Your task to perform on an android device: Open CNN.com Image 0: 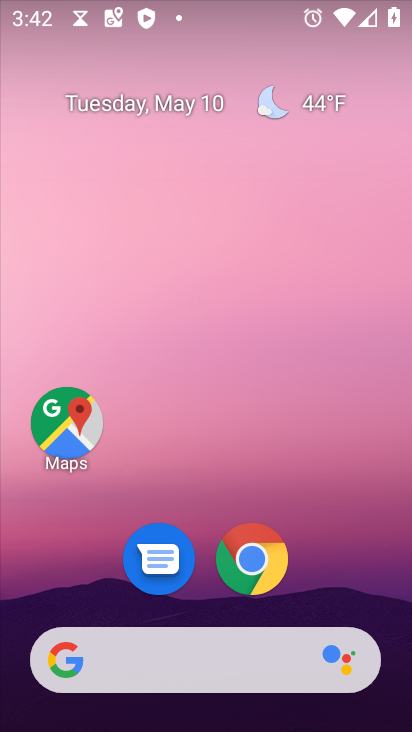
Step 0: drag from (377, 601) to (138, 50)
Your task to perform on an android device: Open CNN.com Image 1: 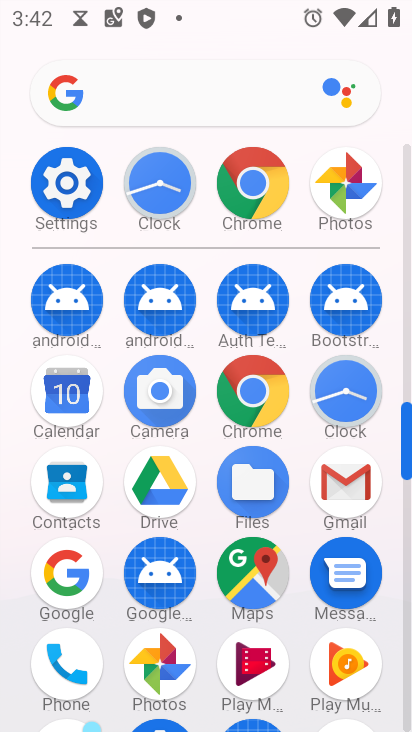
Step 1: click (259, 178)
Your task to perform on an android device: Open CNN.com Image 2: 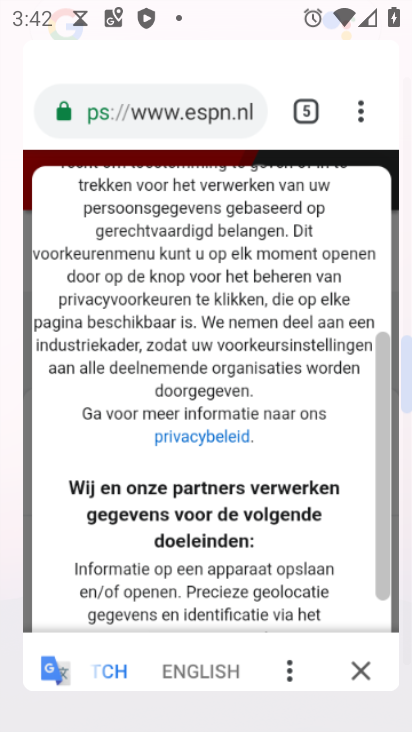
Step 2: click (262, 177)
Your task to perform on an android device: Open CNN.com Image 3: 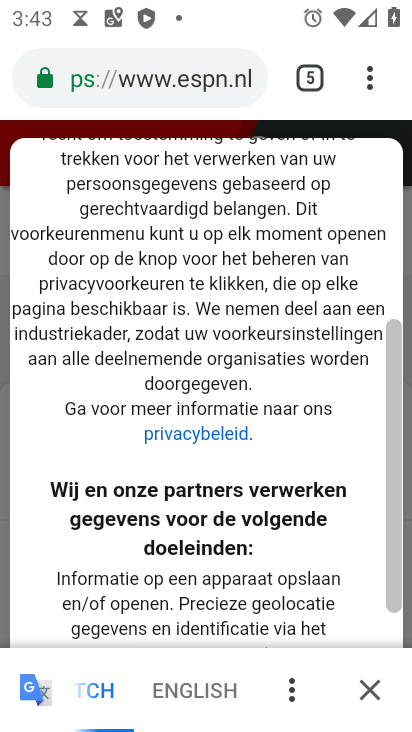
Step 3: drag from (361, 81) to (92, 163)
Your task to perform on an android device: Open CNN.com Image 4: 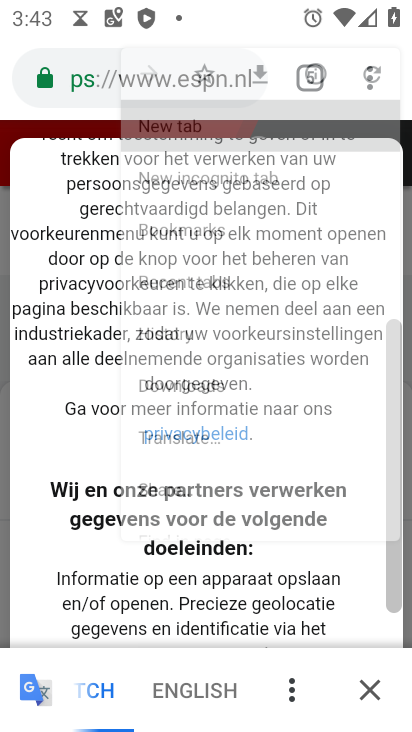
Step 4: click (91, 161)
Your task to perform on an android device: Open CNN.com Image 5: 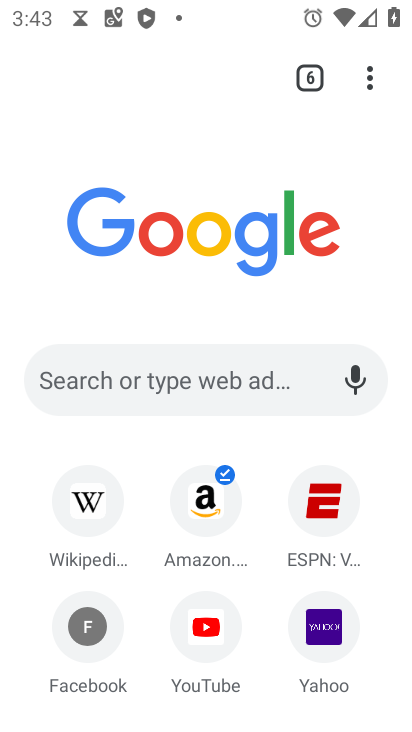
Step 5: click (77, 380)
Your task to perform on an android device: Open CNN.com Image 6: 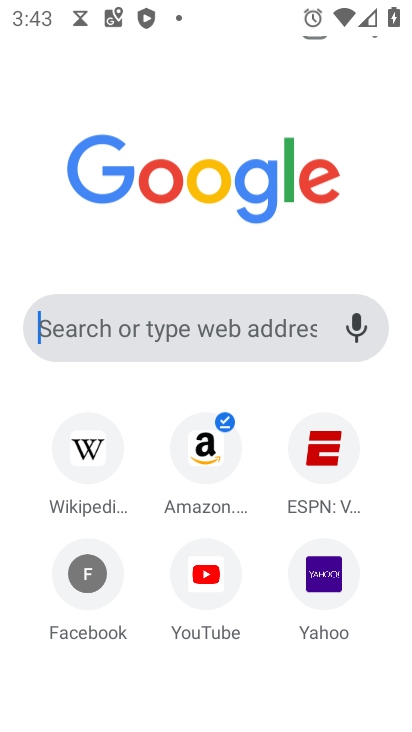
Step 6: click (76, 381)
Your task to perform on an android device: Open CNN.com Image 7: 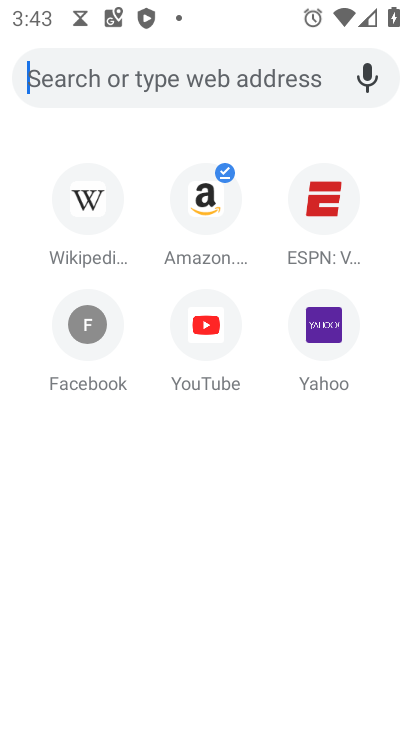
Step 7: click (75, 382)
Your task to perform on an android device: Open CNN.com Image 8: 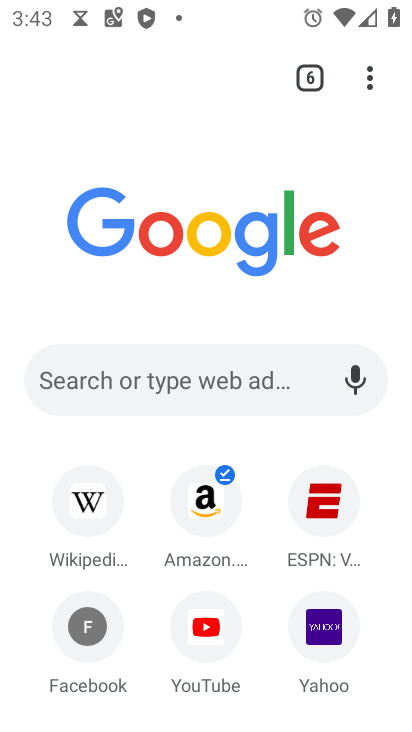
Step 8: type "cnn.com"
Your task to perform on an android device: Open CNN.com Image 9: 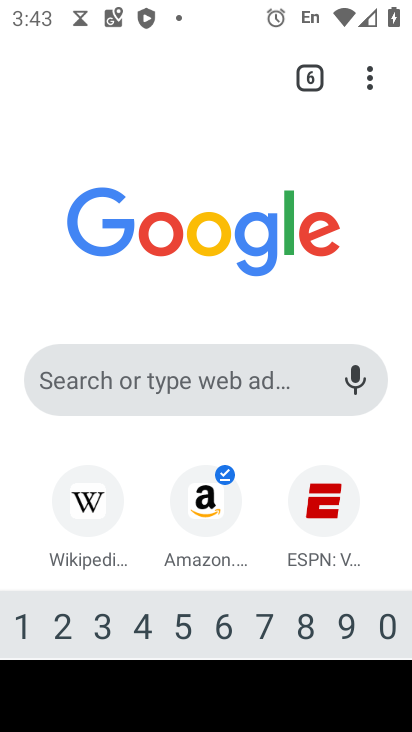
Step 9: click (105, 385)
Your task to perform on an android device: Open CNN.com Image 10: 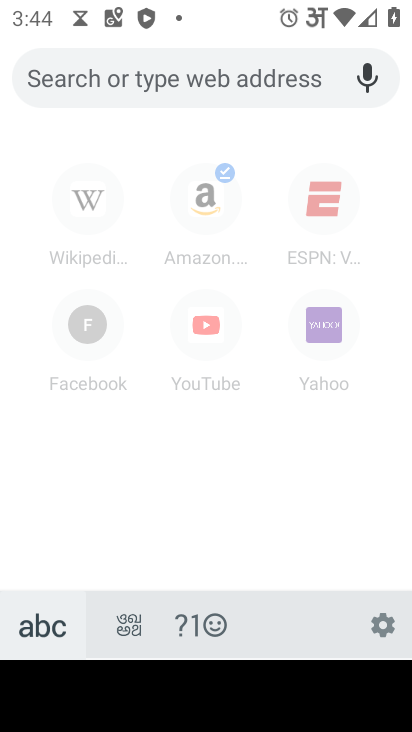
Step 10: type "cnn,com"
Your task to perform on an android device: Open CNN.com Image 11: 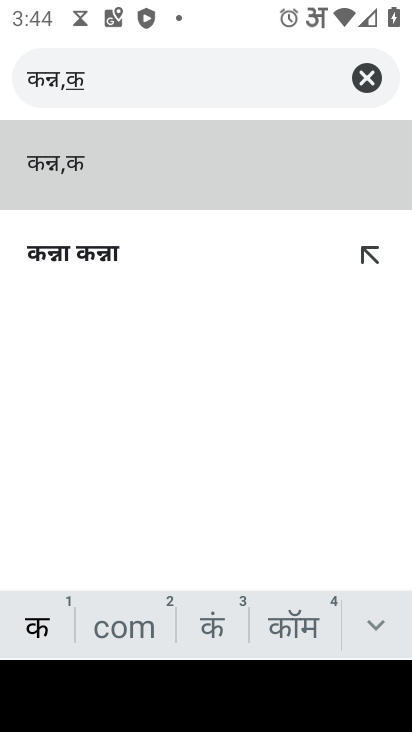
Step 11: click (126, 626)
Your task to perform on an android device: Open CNN.com Image 12: 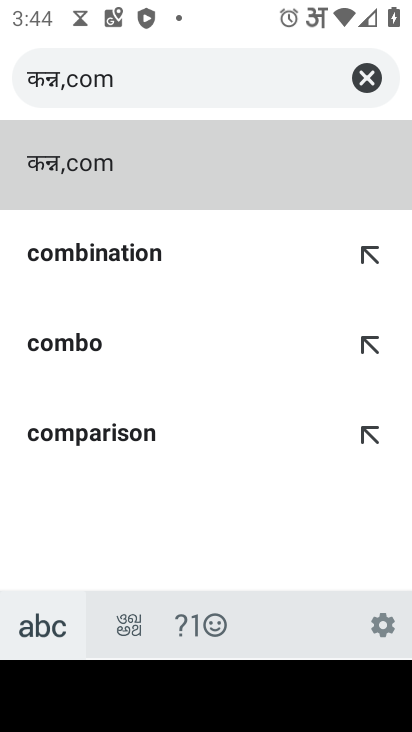
Step 12: click (126, 626)
Your task to perform on an android device: Open CNN.com Image 13: 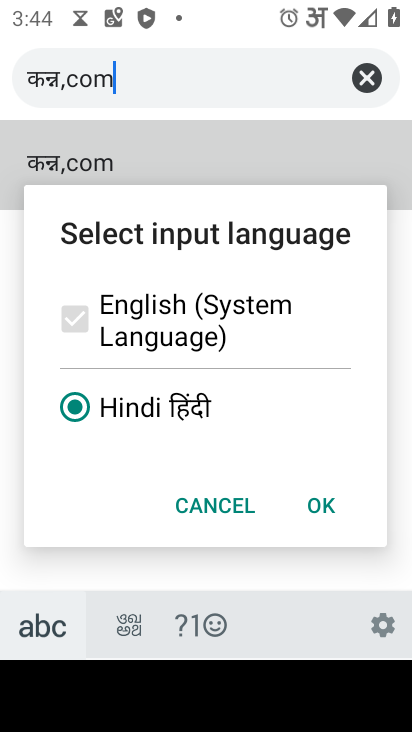
Step 13: click (157, 316)
Your task to perform on an android device: Open CNN.com Image 14: 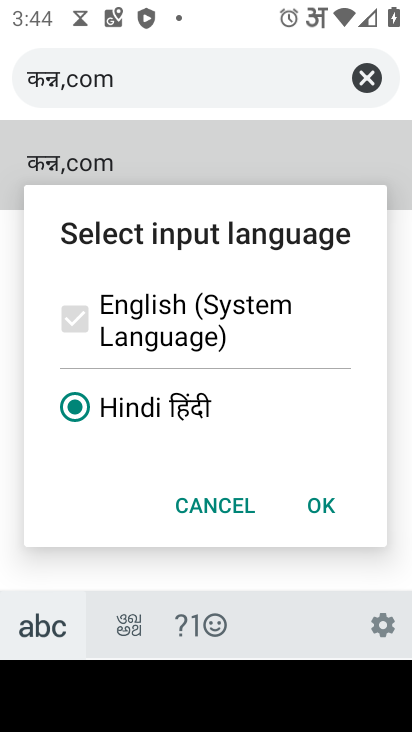
Step 14: click (157, 316)
Your task to perform on an android device: Open CNN.com Image 15: 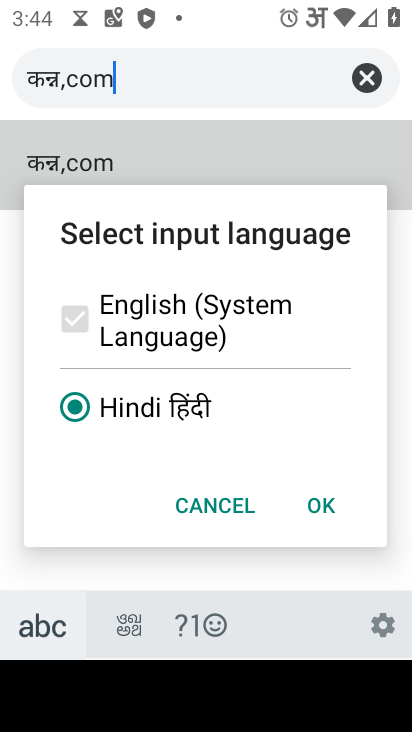
Step 15: click (157, 316)
Your task to perform on an android device: Open CNN.com Image 16: 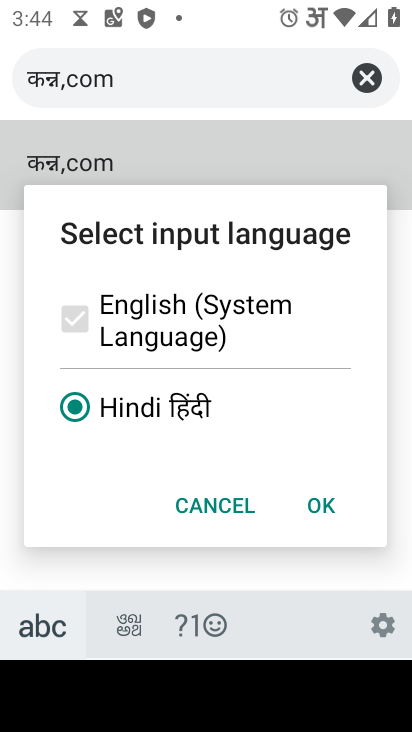
Step 16: click (157, 316)
Your task to perform on an android device: Open CNN.com Image 17: 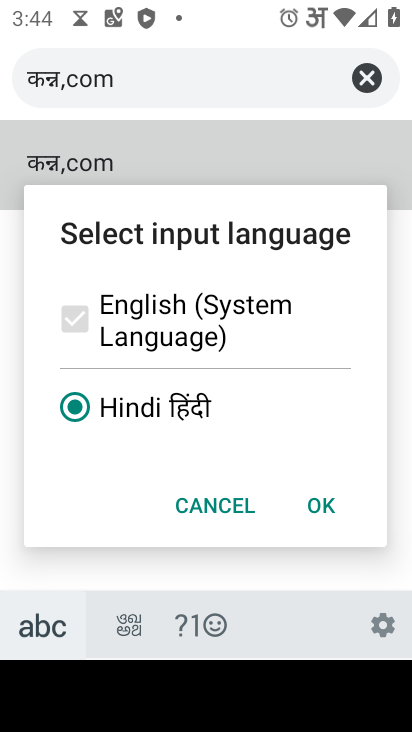
Step 17: click (157, 316)
Your task to perform on an android device: Open CNN.com Image 18: 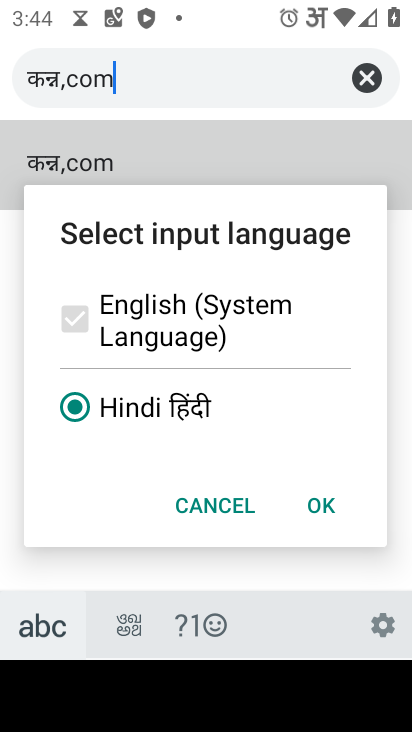
Step 18: click (157, 316)
Your task to perform on an android device: Open CNN.com Image 19: 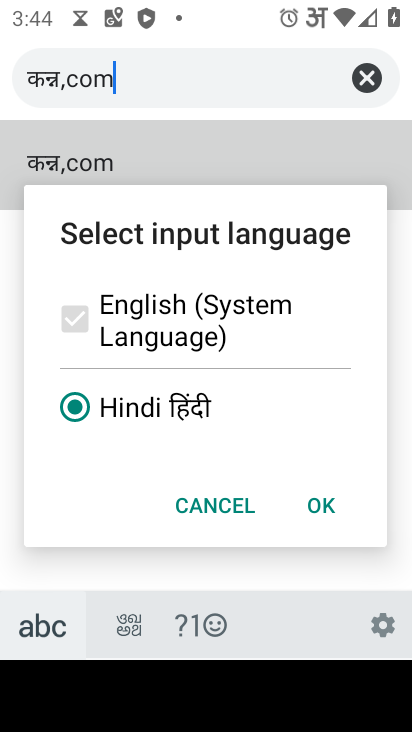
Step 19: click (157, 316)
Your task to perform on an android device: Open CNN.com Image 20: 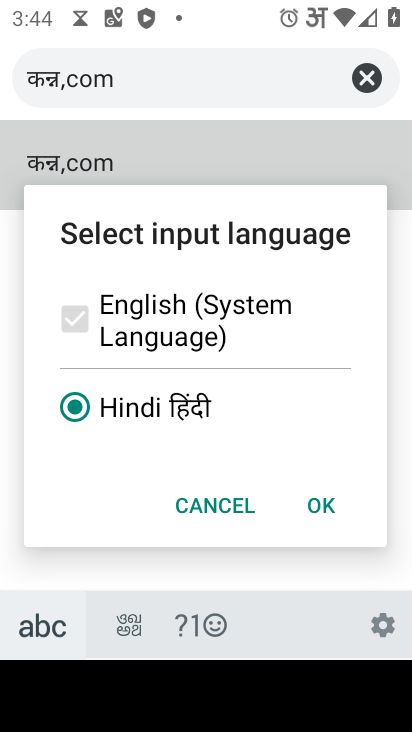
Step 20: click (157, 316)
Your task to perform on an android device: Open CNN.com Image 21: 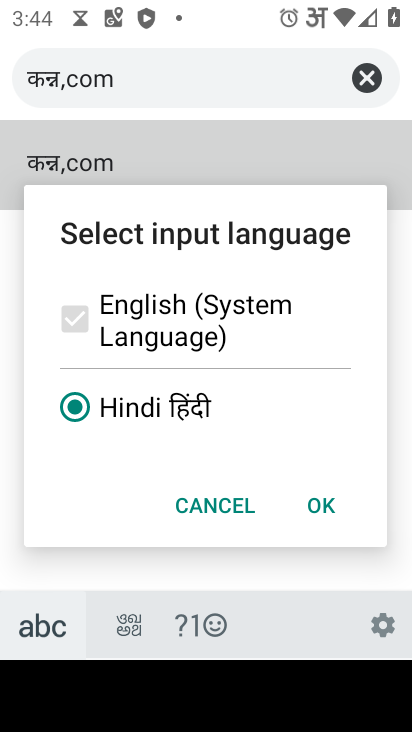
Step 21: click (157, 316)
Your task to perform on an android device: Open CNN.com Image 22: 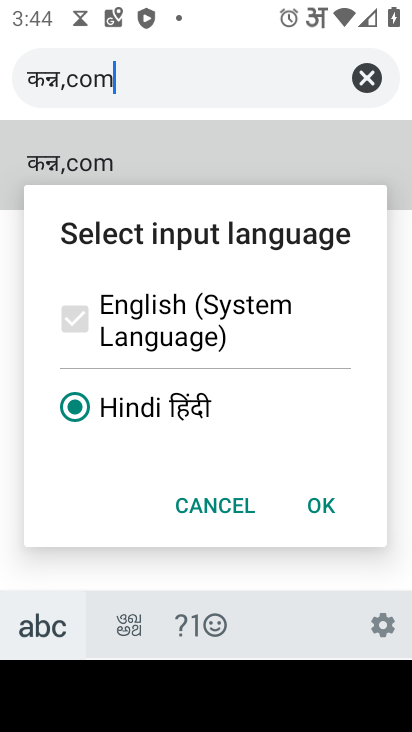
Step 22: click (157, 316)
Your task to perform on an android device: Open CNN.com Image 23: 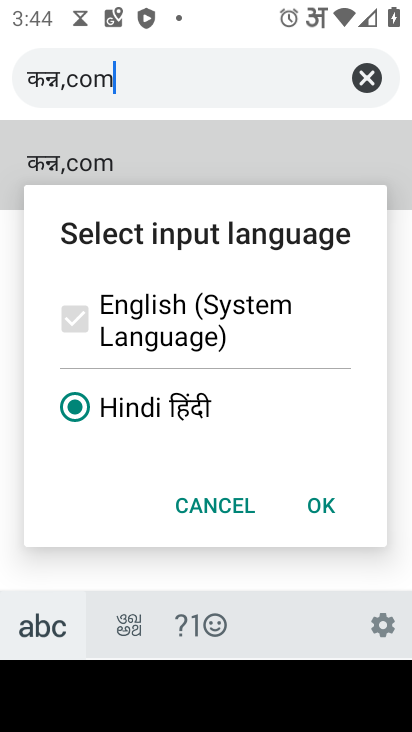
Step 23: click (157, 316)
Your task to perform on an android device: Open CNN.com Image 24: 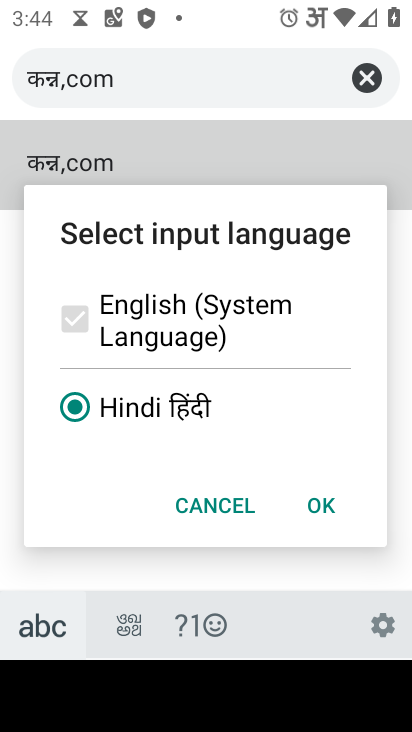
Step 24: click (157, 316)
Your task to perform on an android device: Open CNN.com Image 25: 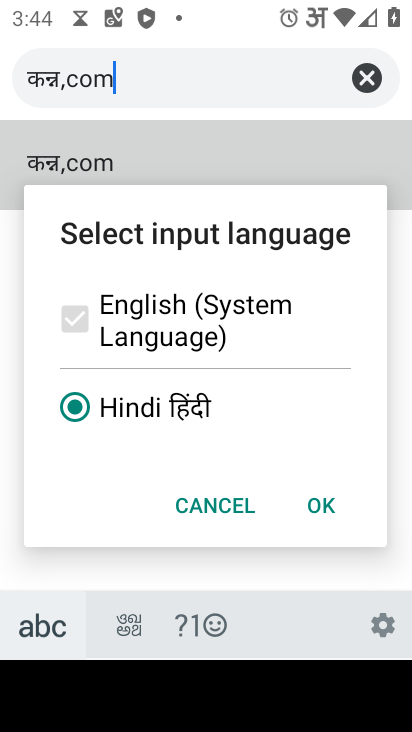
Step 25: click (157, 316)
Your task to perform on an android device: Open CNN.com Image 26: 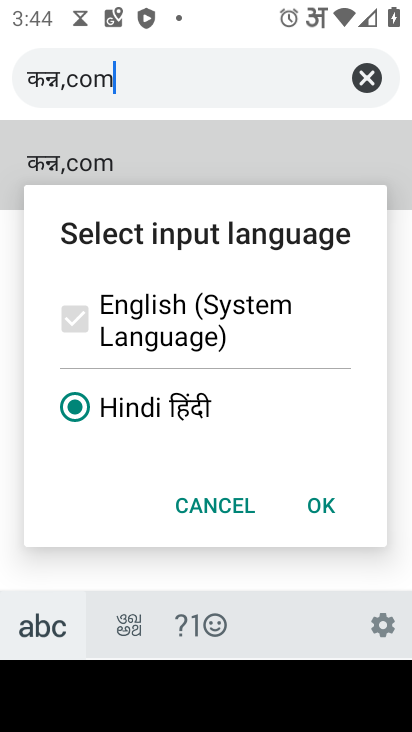
Step 26: click (157, 316)
Your task to perform on an android device: Open CNN.com Image 27: 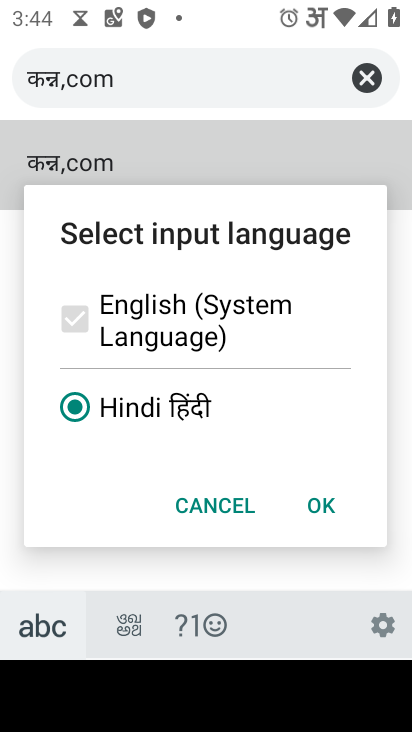
Step 27: click (169, 332)
Your task to perform on an android device: Open CNN.com Image 28: 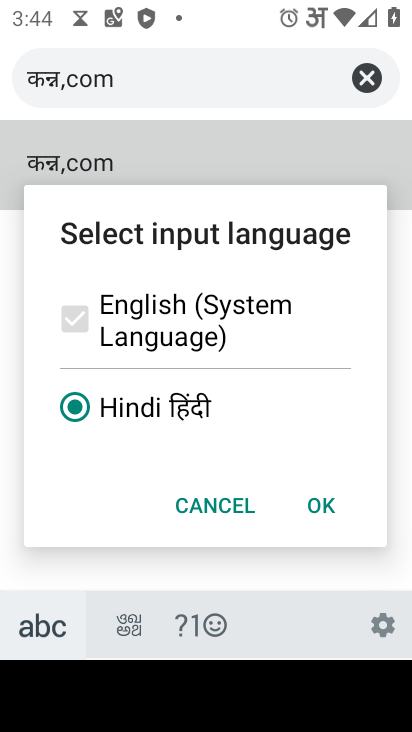
Step 28: click (169, 332)
Your task to perform on an android device: Open CNN.com Image 29: 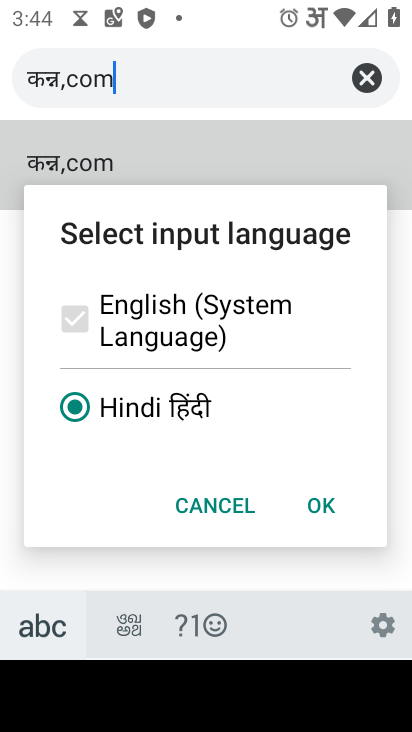
Step 29: click (169, 332)
Your task to perform on an android device: Open CNN.com Image 30: 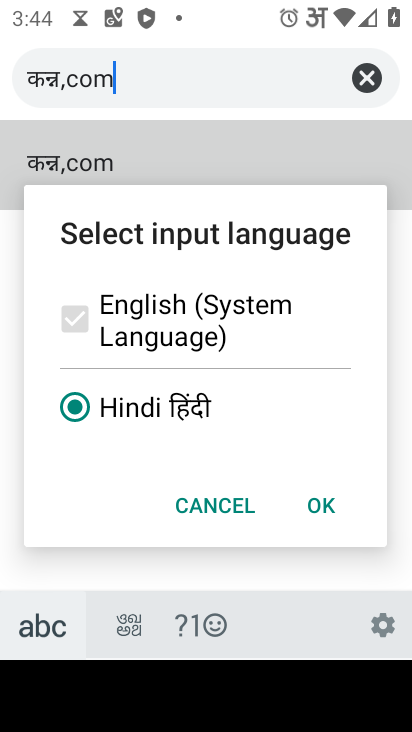
Step 30: click (169, 332)
Your task to perform on an android device: Open CNN.com Image 31: 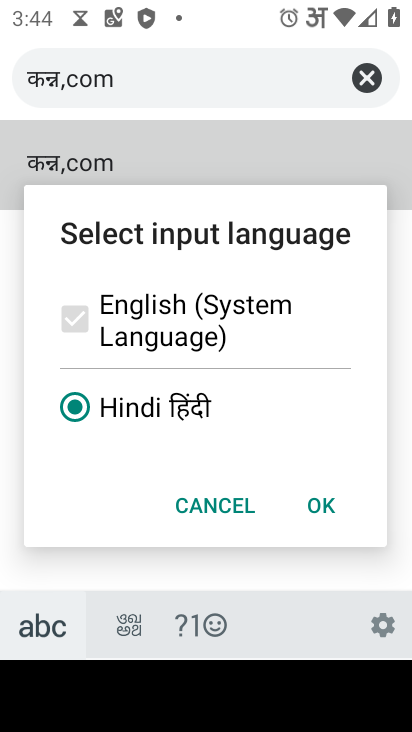
Step 31: click (169, 332)
Your task to perform on an android device: Open CNN.com Image 32: 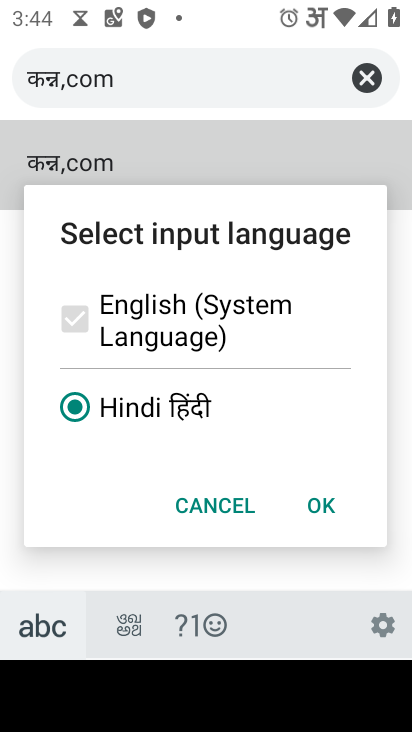
Step 32: click (169, 332)
Your task to perform on an android device: Open CNN.com Image 33: 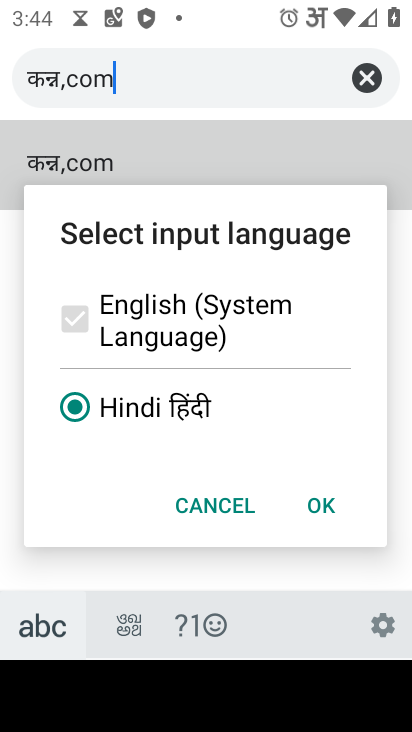
Step 33: click (169, 332)
Your task to perform on an android device: Open CNN.com Image 34: 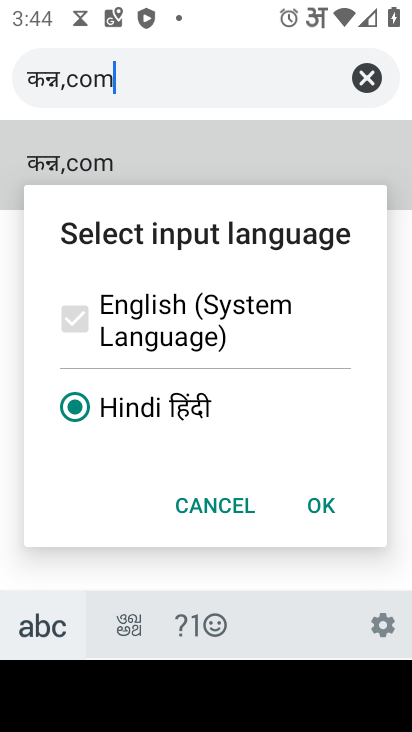
Step 34: click (169, 332)
Your task to perform on an android device: Open CNN.com Image 35: 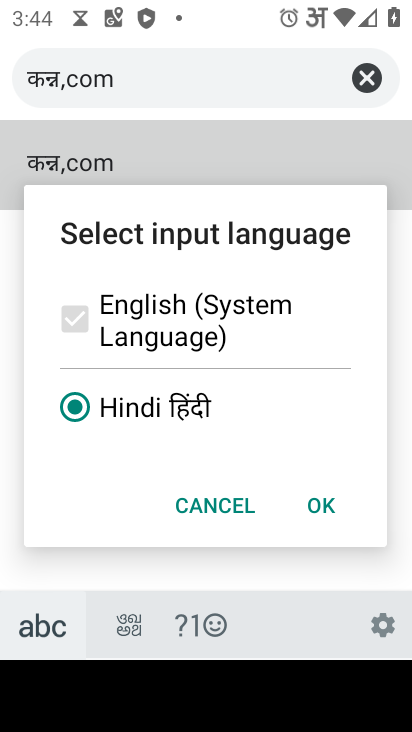
Step 35: click (169, 332)
Your task to perform on an android device: Open CNN.com Image 36: 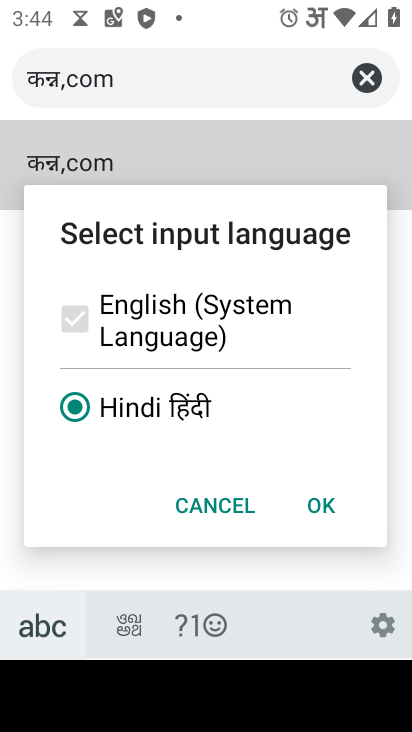
Step 36: click (169, 332)
Your task to perform on an android device: Open CNN.com Image 37: 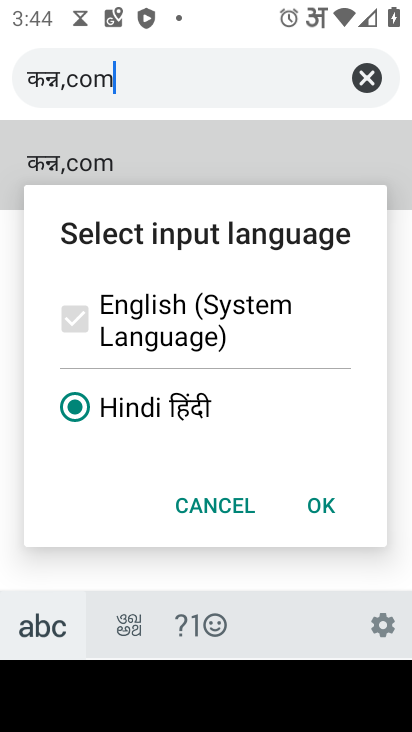
Step 37: click (169, 332)
Your task to perform on an android device: Open CNN.com Image 38: 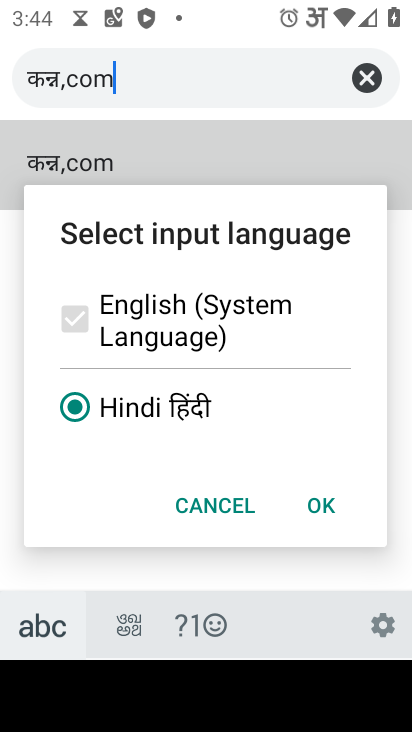
Step 38: click (169, 332)
Your task to perform on an android device: Open CNN.com Image 39: 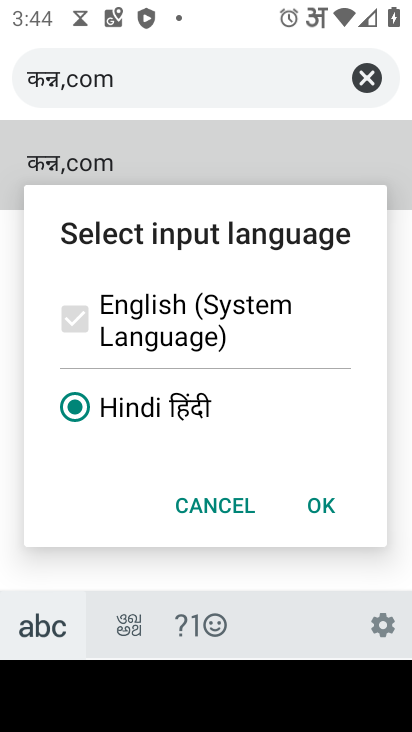
Step 39: click (212, 505)
Your task to perform on an android device: Open CNN.com Image 40: 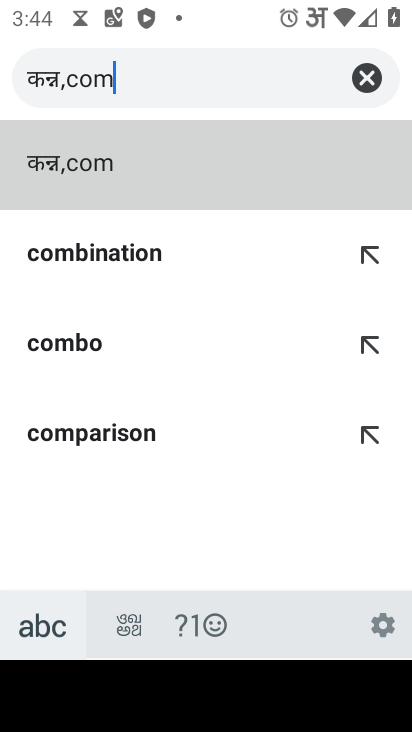
Step 40: click (62, 77)
Your task to perform on an android device: Open CNN.com Image 41: 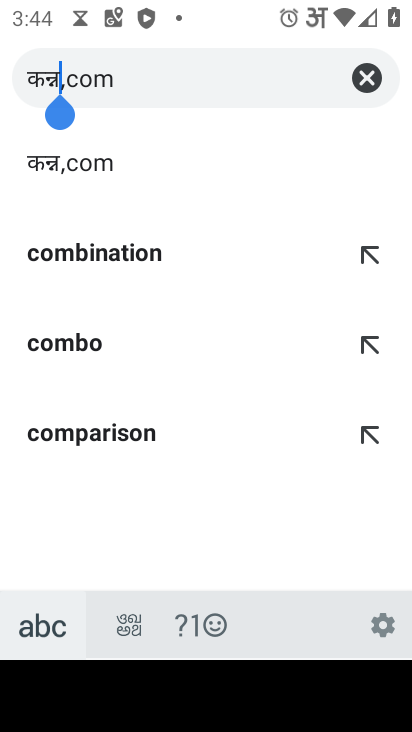
Step 41: click (62, 77)
Your task to perform on an android device: Open CNN.com Image 42: 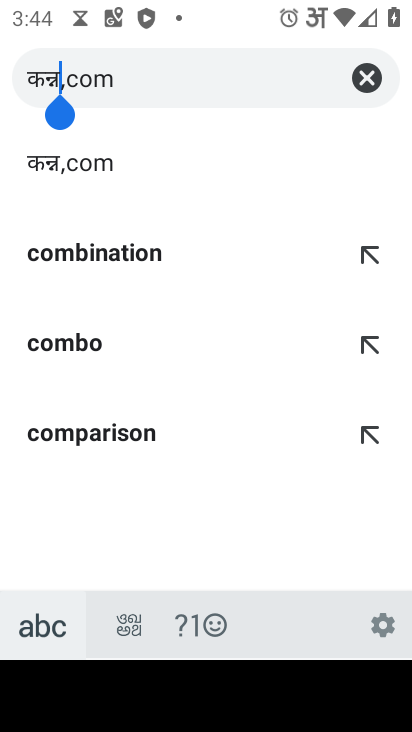
Step 42: click (67, 75)
Your task to perform on an android device: Open CNN.com Image 43: 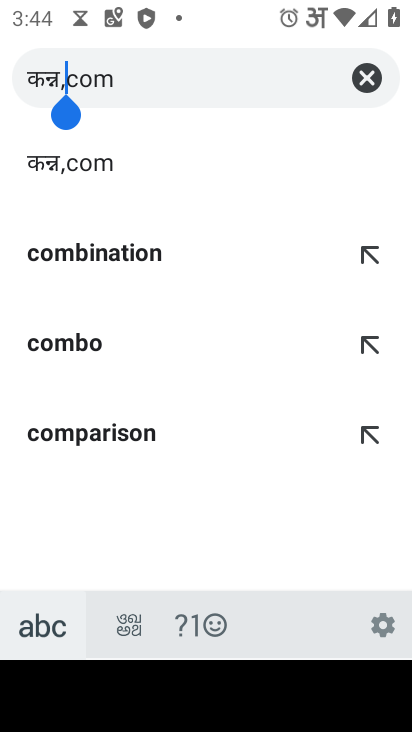
Step 43: click (68, 75)
Your task to perform on an android device: Open CNN.com Image 44: 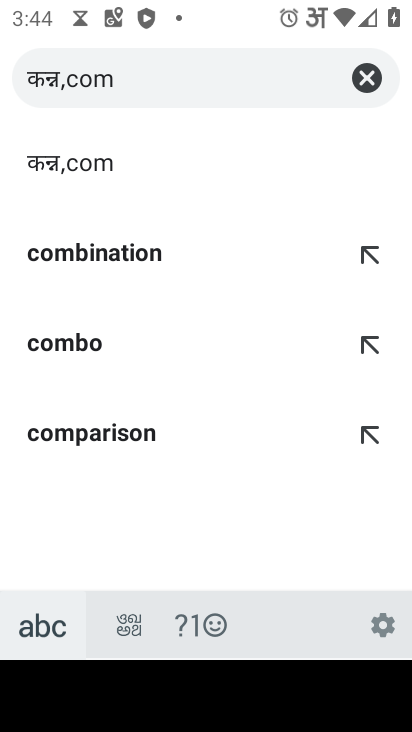
Step 44: click (130, 94)
Your task to perform on an android device: Open CNN.com Image 45: 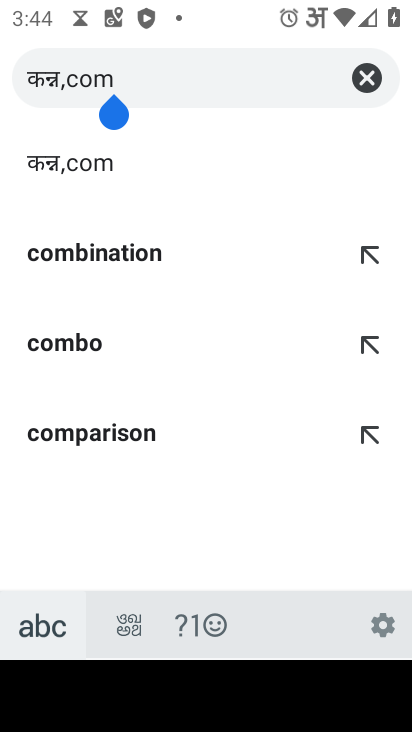
Step 45: click (366, 83)
Your task to perform on an android device: Open CNN.com Image 46: 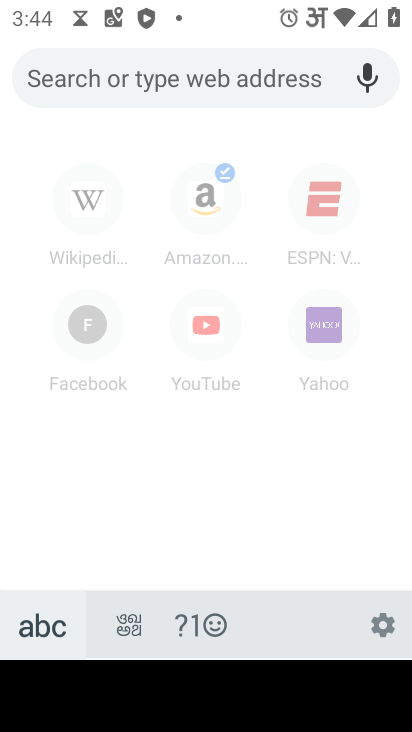
Step 46: type "cnn.com"
Your task to perform on an android device: Open CNN.com Image 47: 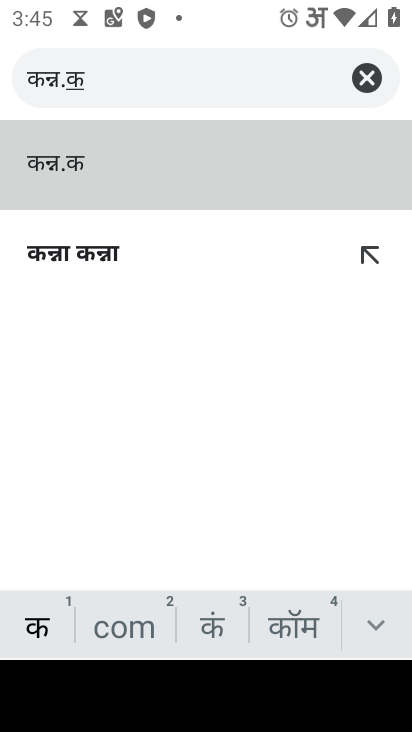
Step 47: click (142, 630)
Your task to perform on an android device: Open CNN.com Image 48: 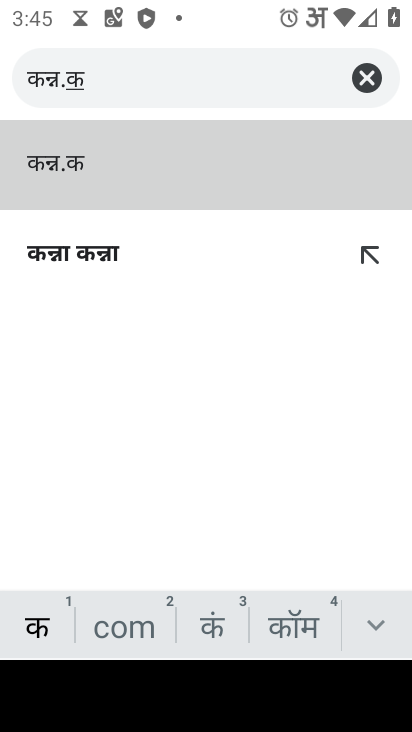
Step 48: click (142, 630)
Your task to perform on an android device: Open CNN.com Image 49: 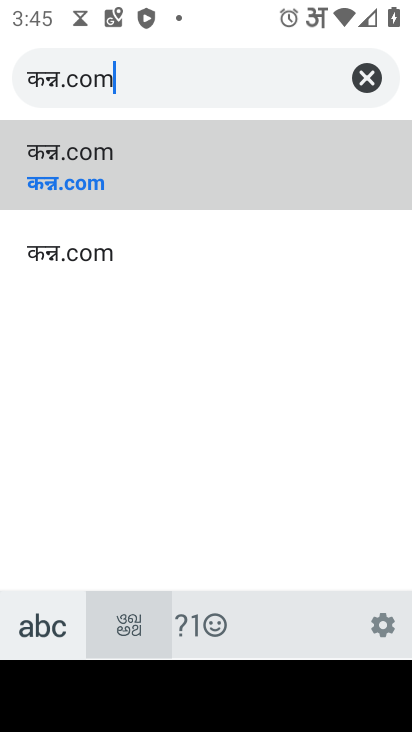
Step 49: click (142, 630)
Your task to perform on an android device: Open CNN.com Image 50: 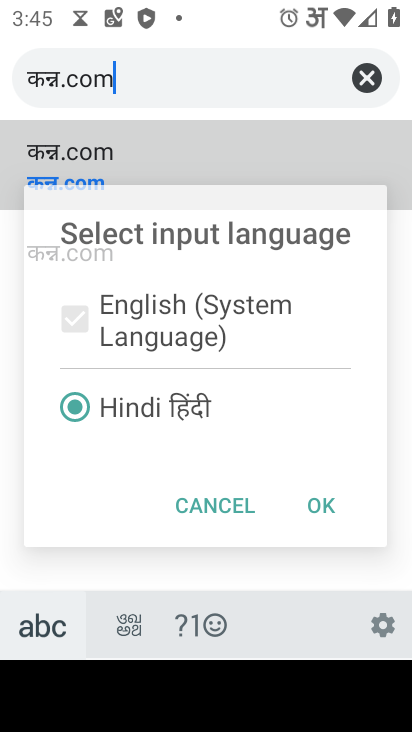
Step 50: click (142, 630)
Your task to perform on an android device: Open CNN.com Image 51: 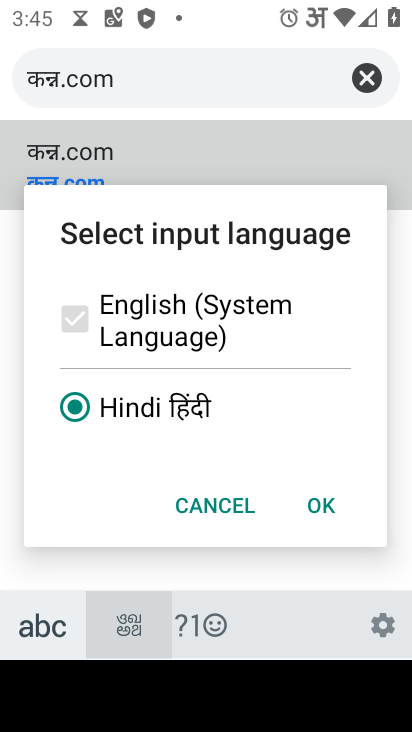
Step 51: click (142, 630)
Your task to perform on an android device: Open CNN.com Image 52: 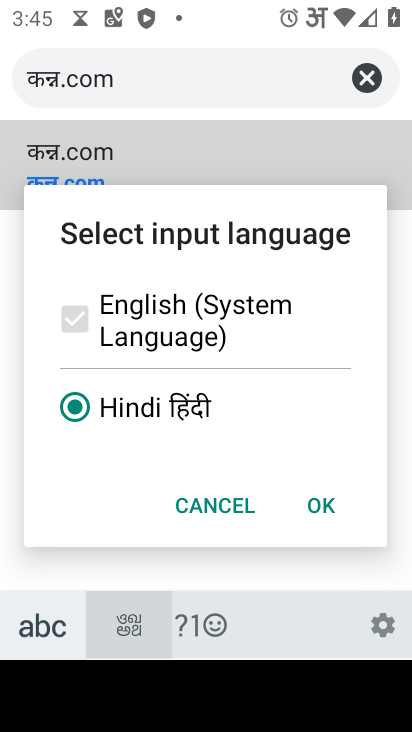
Step 52: click (142, 630)
Your task to perform on an android device: Open CNN.com Image 53: 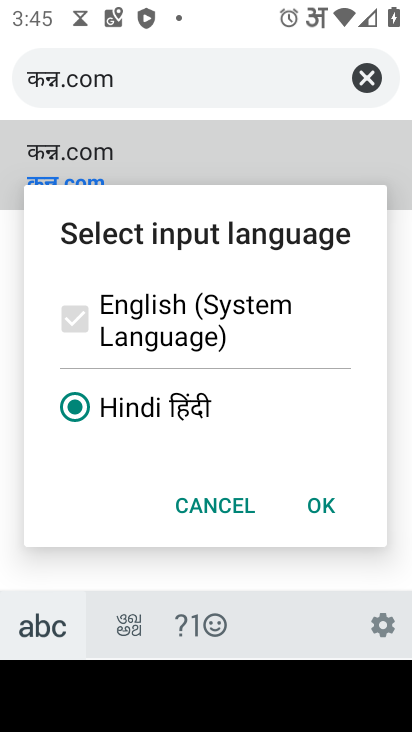
Step 53: click (76, 316)
Your task to perform on an android device: Open CNN.com Image 54: 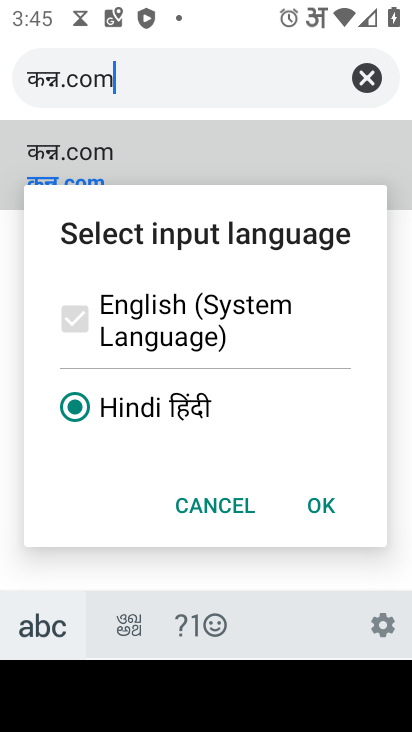
Step 54: click (76, 316)
Your task to perform on an android device: Open CNN.com Image 55: 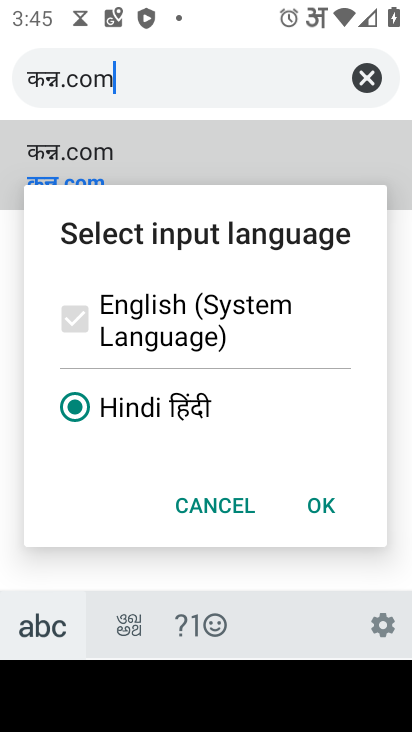
Step 55: click (67, 409)
Your task to perform on an android device: Open CNN.com Image 56: 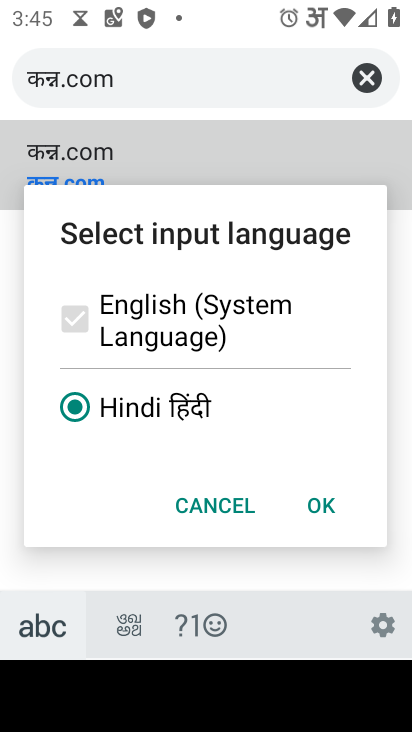
Step 56: click (67, 409)
Your task to perform on an android device: Open CNN.com Image 57: 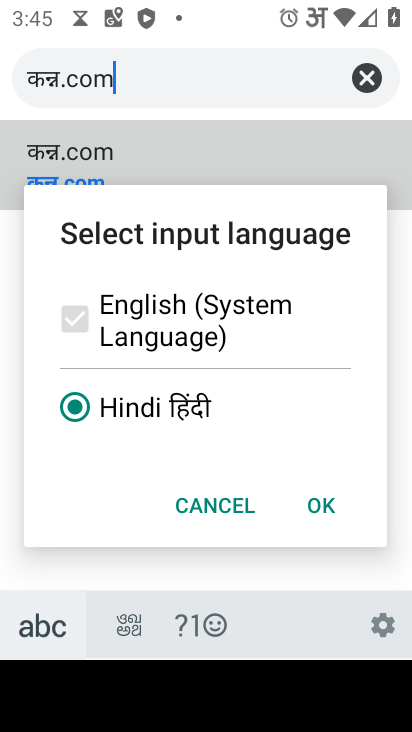
Step 57: click (83, 317)
Your task to perform on an android device: Open CNN.com Image 58: 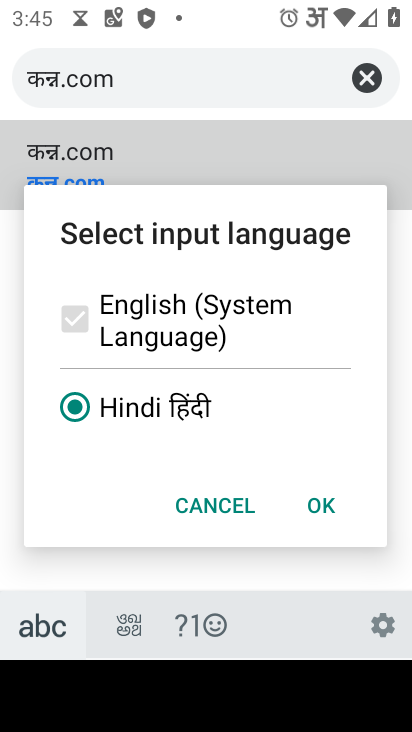
Step 58: click (83, 316)
Your task to perform on an android device: Open CNN.com Image 59: 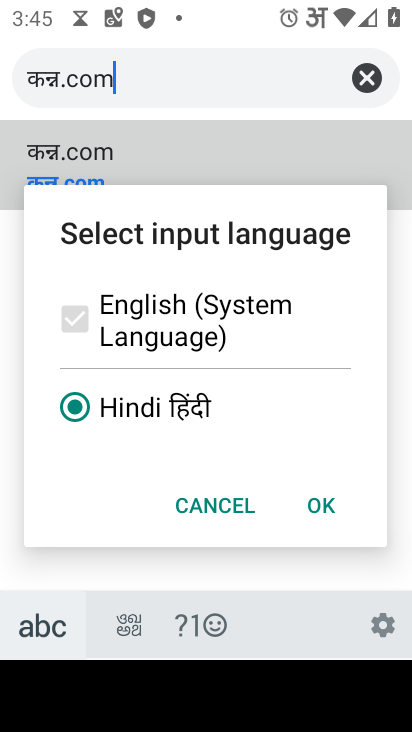
Step 59: click (83, 316)
Your task to perform on an android device: Open CNN.com Image 60: 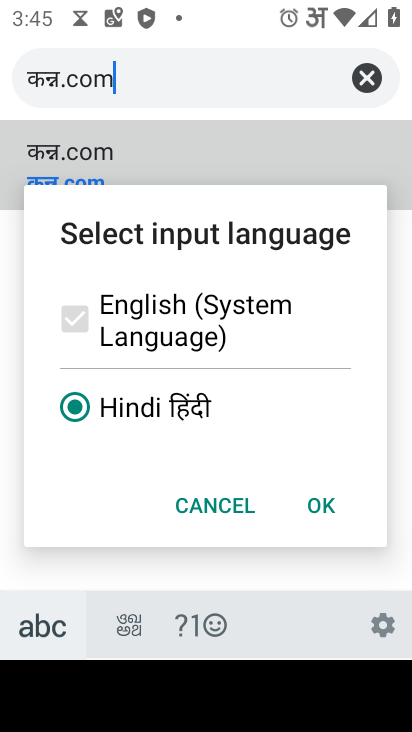
Step 60: click (84, 316)
Your task to perform on an android device: Open CNN.com Image 61: 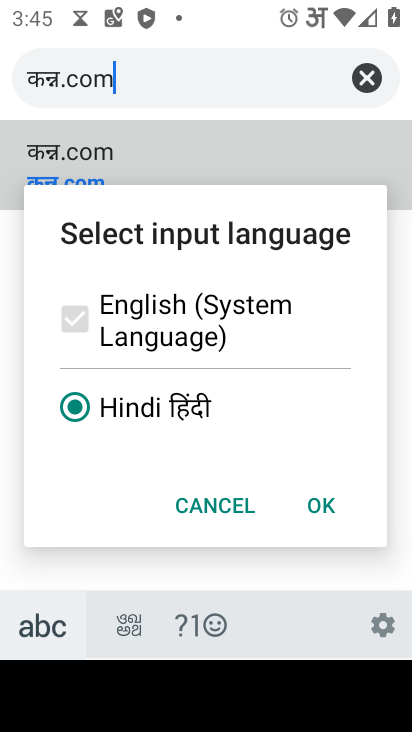
Step 61: click (80, 416)
Your task to perform on an android device: Open CNN.com Image 62: 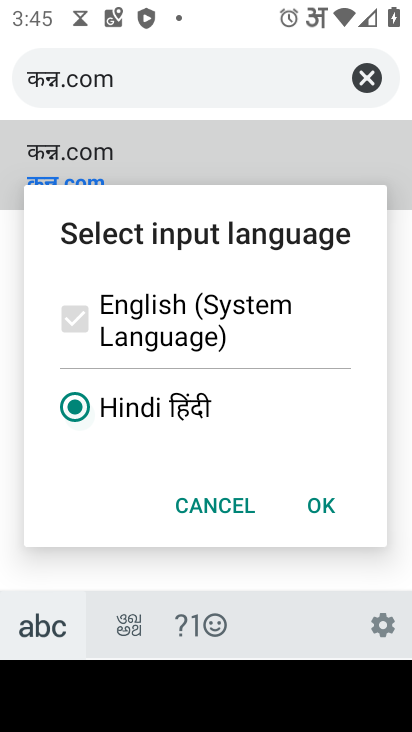
Step 62: click (81, 416)
Your task to perform on an android device: Open CNN.com Image 63: 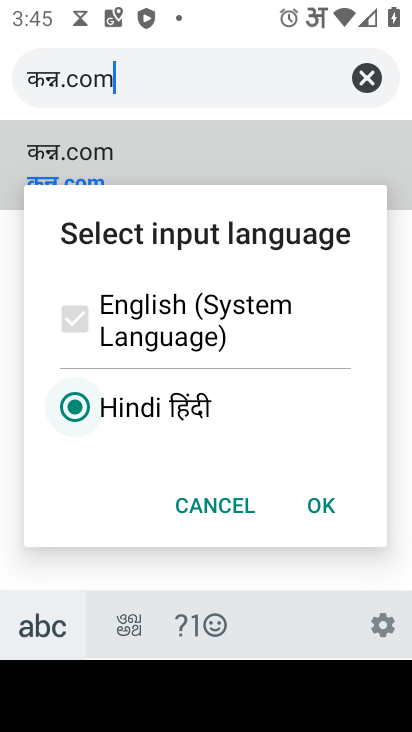
Step 63: click (81, 416)
Your task to perform on an android device: Open CNN.com Image 64: 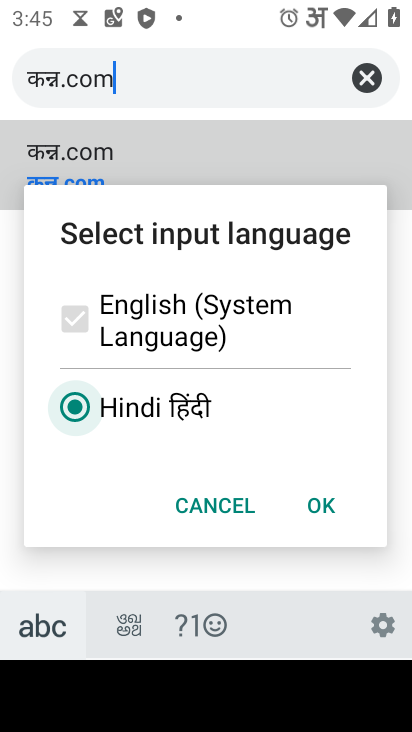
Step 64: click (81, 416)
Your task to perform on an android device: Open CNN.com Image 65: 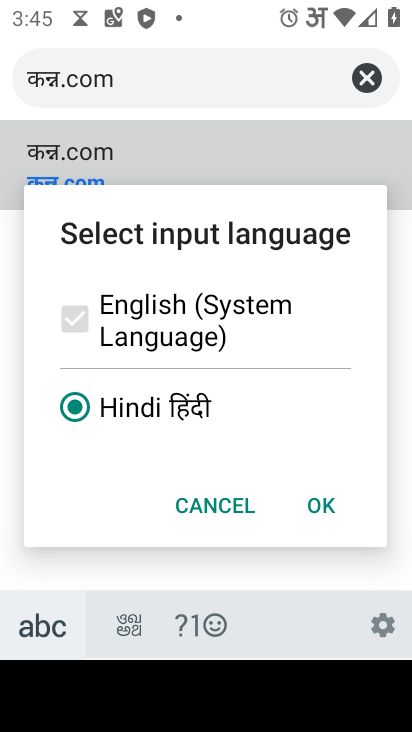
Step 65: click (80, 325)
Your task to perform on an android device: Open CNN.com Image 66: 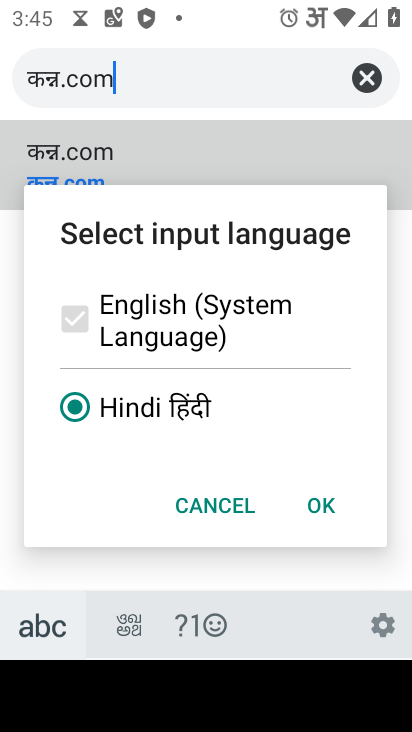
Step 66: click (81, 324)
Your task to perform on an android device: Open CNN.com Image 67: 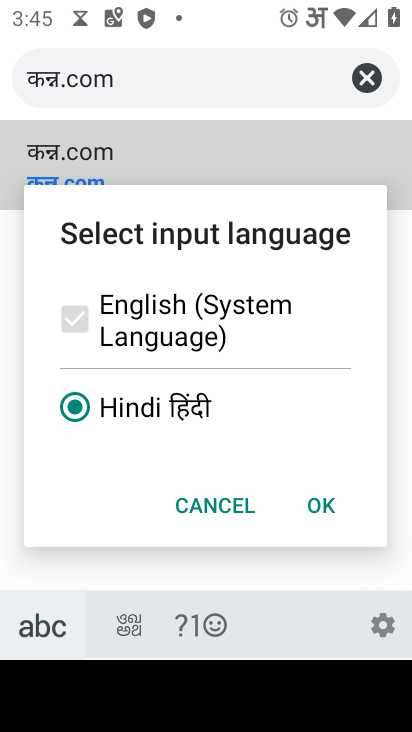
Step 67: click (82, 412)
Your task to perform on an android device: Open CNN.com Image 68: 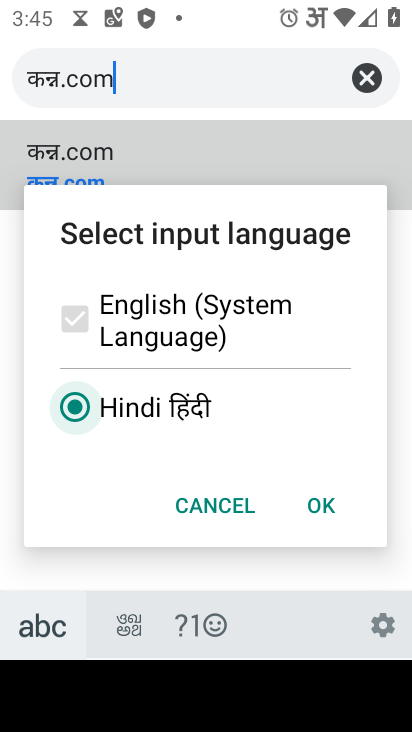
Step 68: click (83, 410)
Your task to perform on an android device: Open CNN.com Image 69: 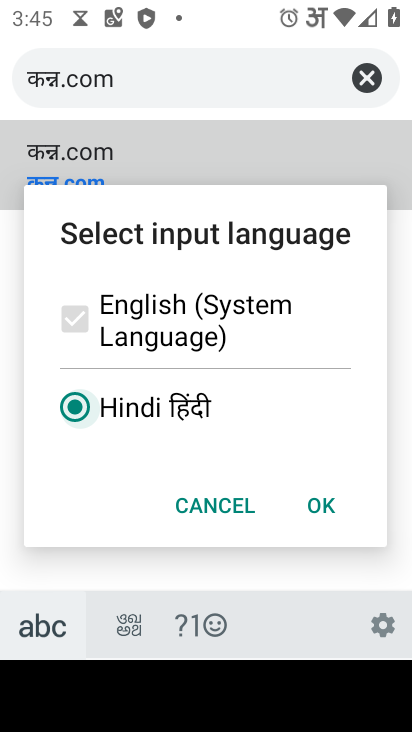
Step 69: click (85, 408)
Your task to perform on an android device: Open CNN.com Image 70: 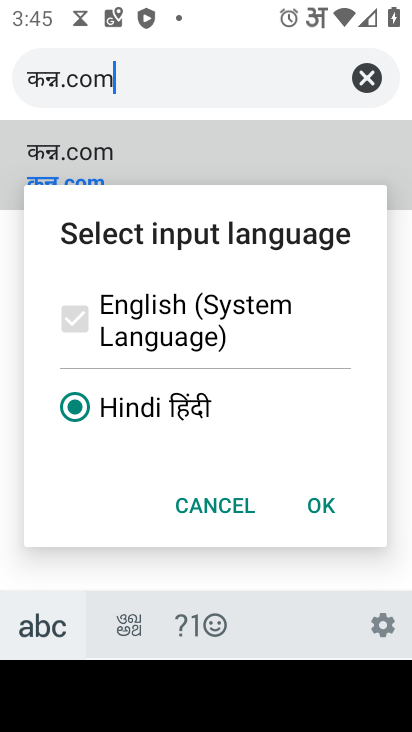
Step 70: click (48, 627)
Your task to perform on an android device: Open CNN.com Image 71: 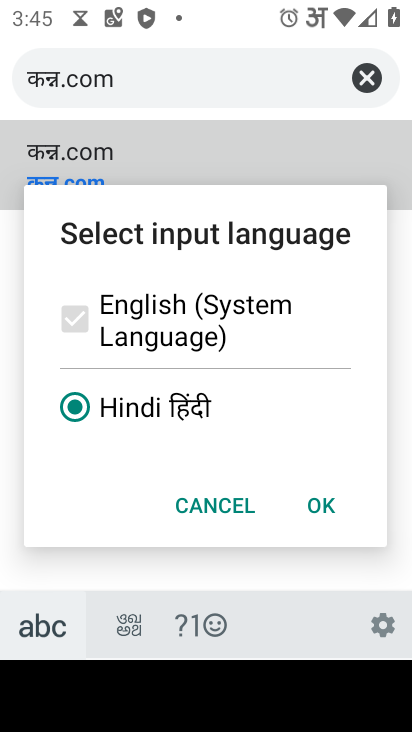
Step 71: click (47, 629)
Your task to perform on an android device: Open CNN.com Image 72: 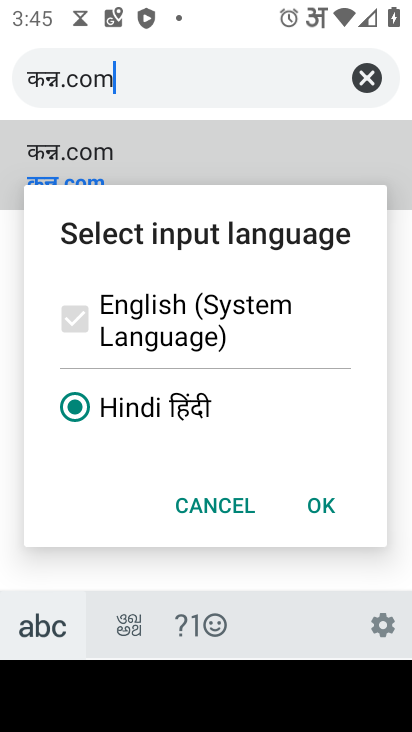
Step 72: click (47, 629)
Your task to perform on an android device: Open CNN.com Image 73: 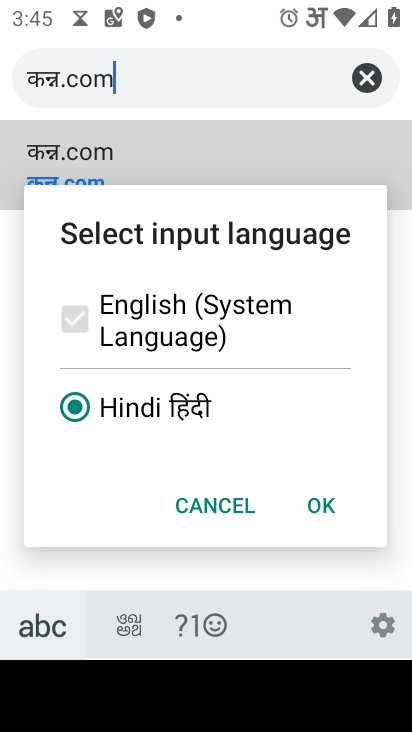
Step 73: click (47, 629)
Your task to perform on an android device: Open CNN.com Image 74: 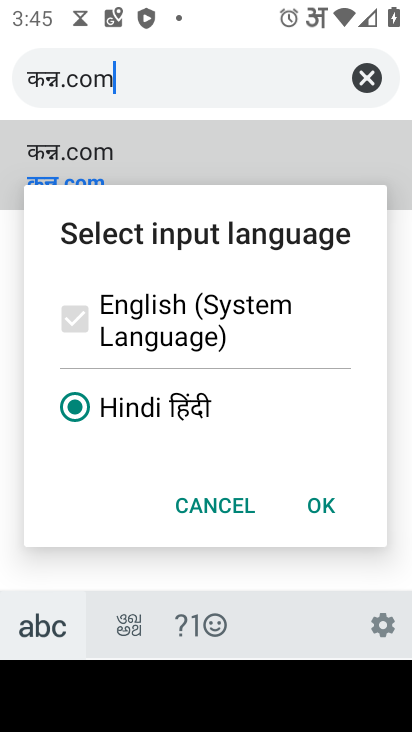
Step 74: click (45, 627)
Your task to perform on an android device: Open CNN.com Image 75: 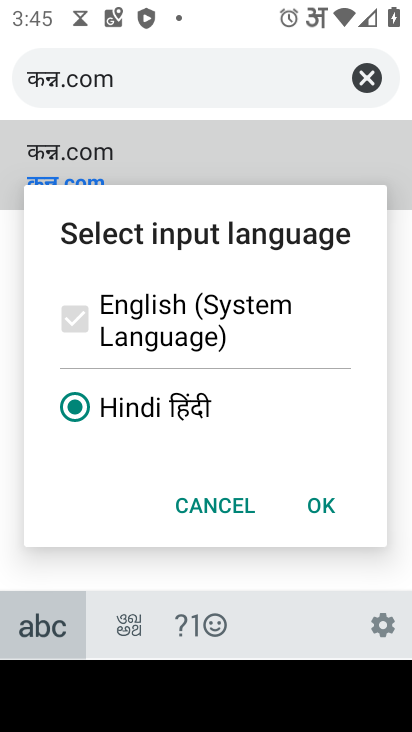
Step 75: click (45, 626)
Your task to perform on an android device: Open CNN.com Image 76: 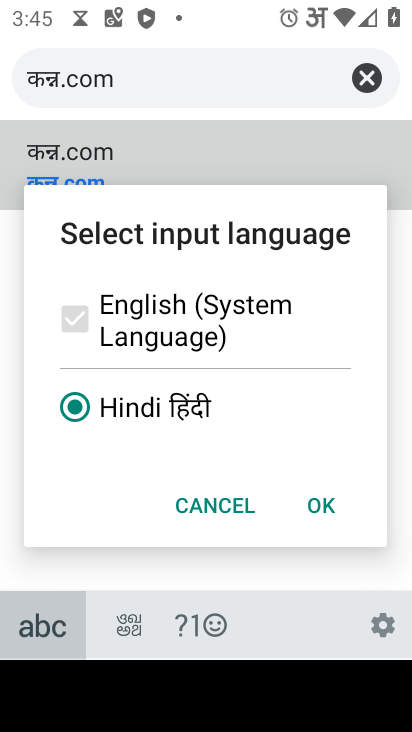
Step 76: click (47, 623)
Your task to perform on an android device: Open CNN.com Image 77: 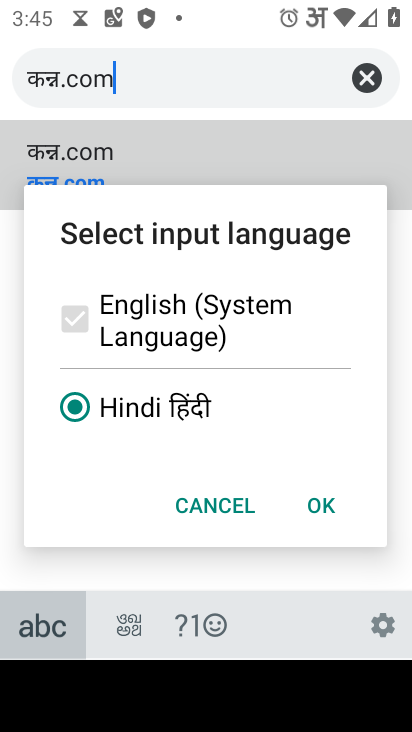
Step 77: click (48, 622)
Your task to perform on an android device: Open CNN.com Image 78: 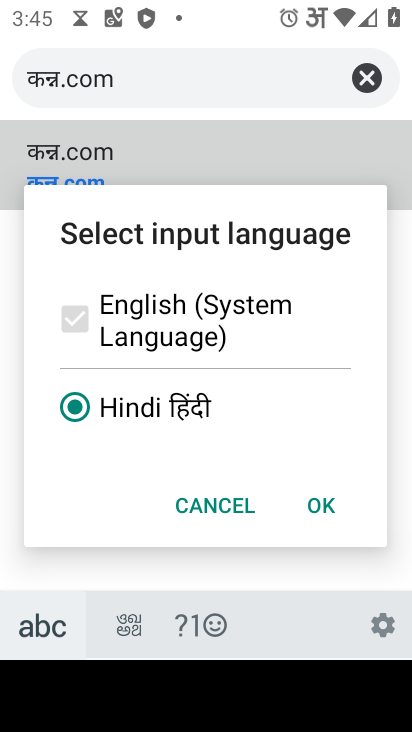
Step 78: click (328, 504)
Your task to perform on an android device: Open CNN.com Image 79: 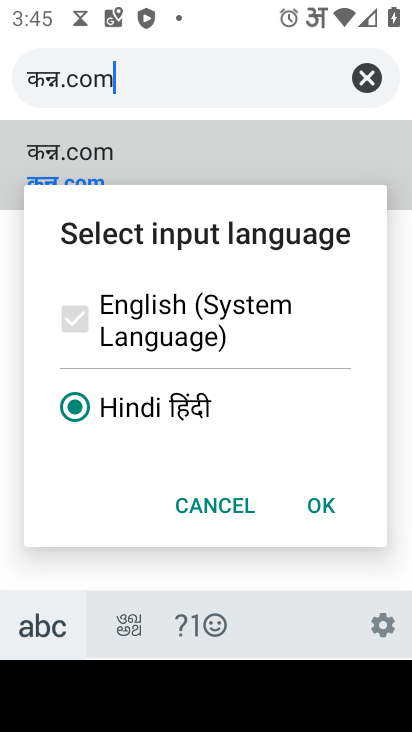
Step 79: click (328, 504)
Your task to perform on an android device: Open CNN.com Image 80: 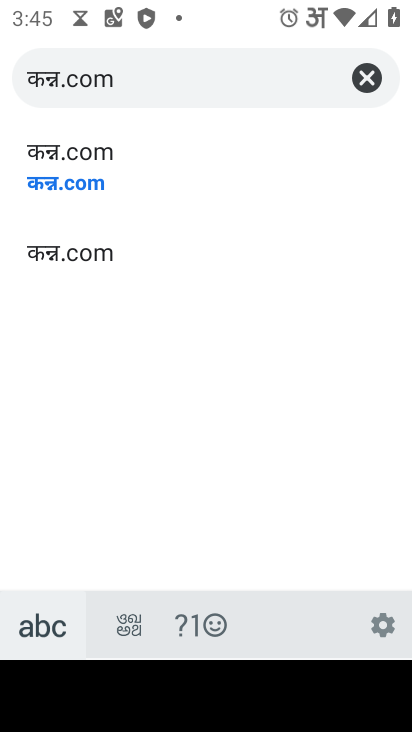
Step 80: click (331, 531)
Your task to perform on an android device: Open CNN.com Image 81: 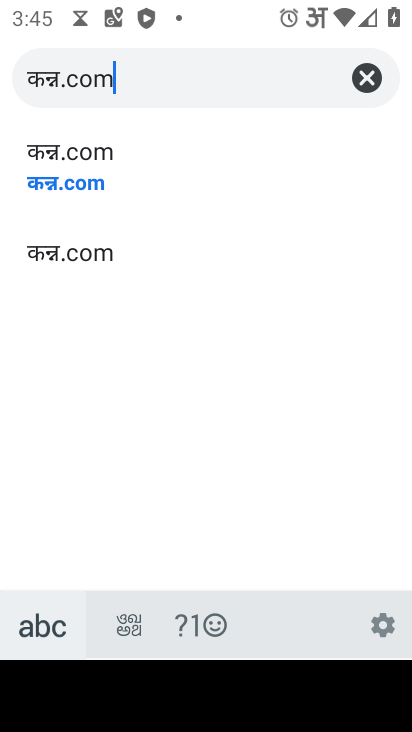
Step 81: click (83, 177)
Your task to perform on an android device: Open CNN.com Image 82: 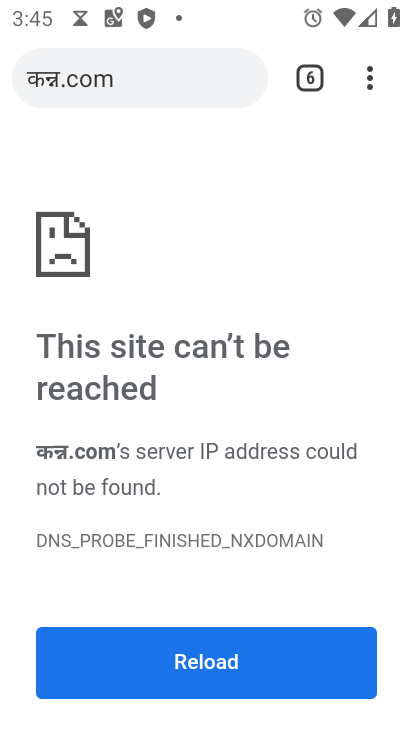
Step 82: task complete